Your task to perform on an android device: Open Wikipedia Image 0: 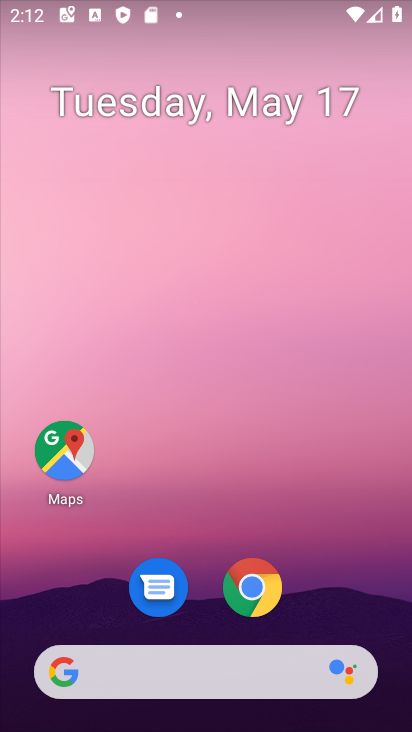
Step 0: drag from (239, 612) to (242, 107)
Your task to perform on an android device: Open Wikipedia Image 1: 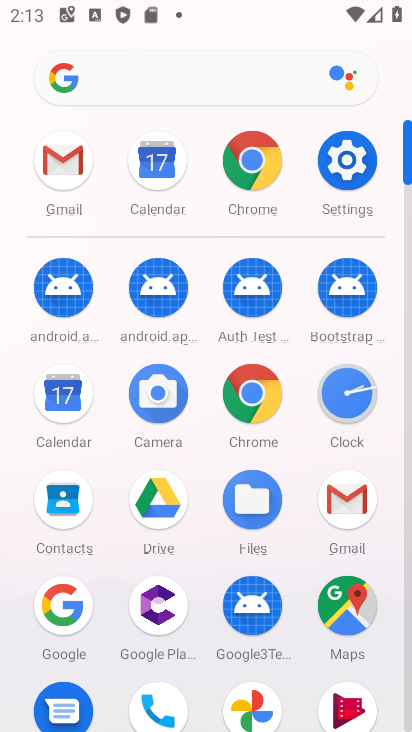
Step 1: click (248, 80)
Your task to perform on an android device: Open Wikipedia Image 2: 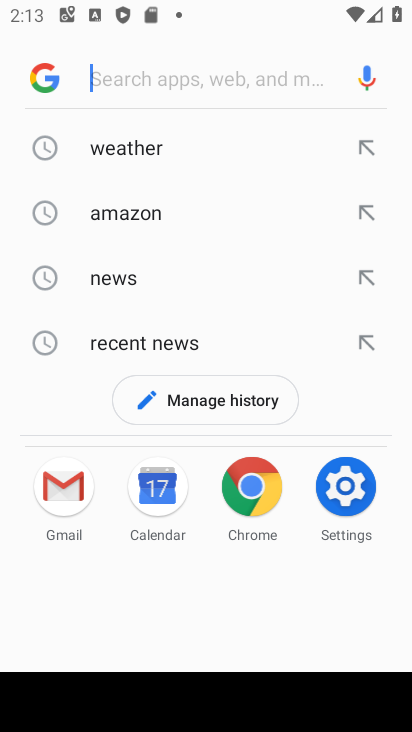
Step 2: type "wikipedia"
Your task to perform on an android device: Open Wikipedia Image 3: 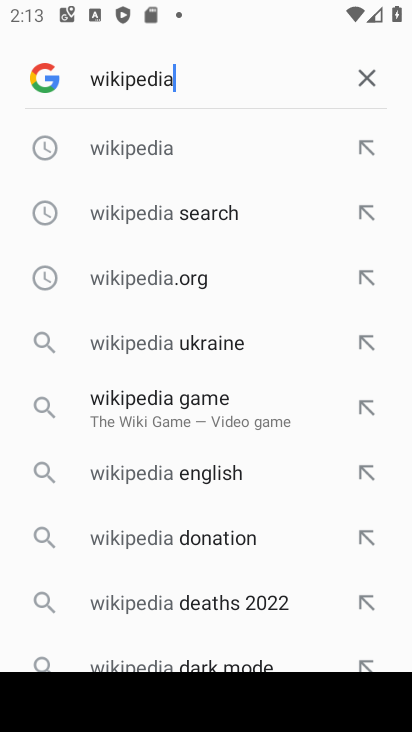
Step 3: click (181, 148)
Your task to perform on an android device: Open Wikipedia Image 4: 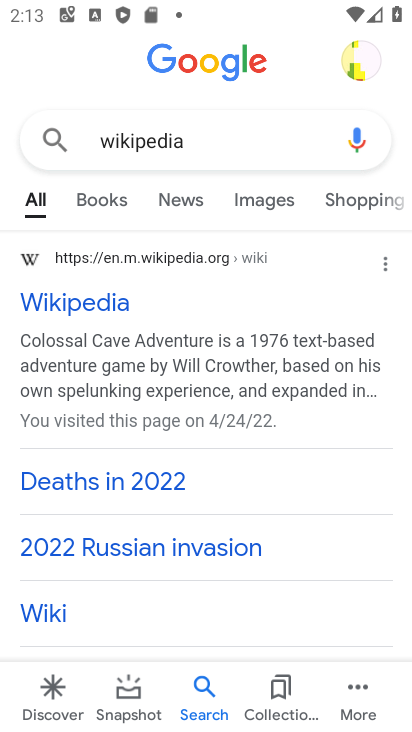
Step 4: click (104, 284)
Your task to perform on an android device: Open Wikipedia Image 5: 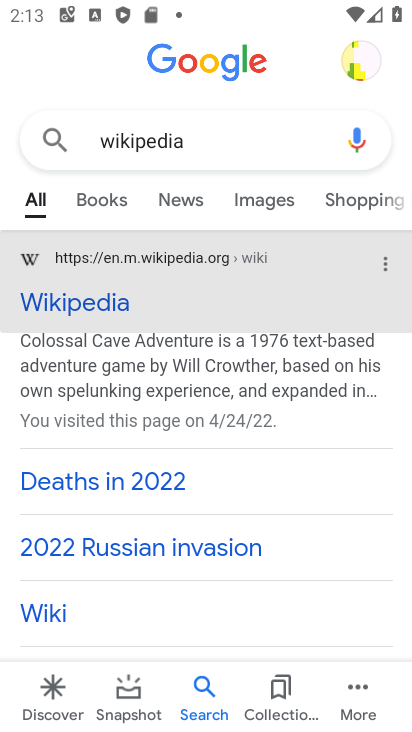
Step 5: click (88, 287)
Your task to perform on an android device: Open Wikipedia Image 6: 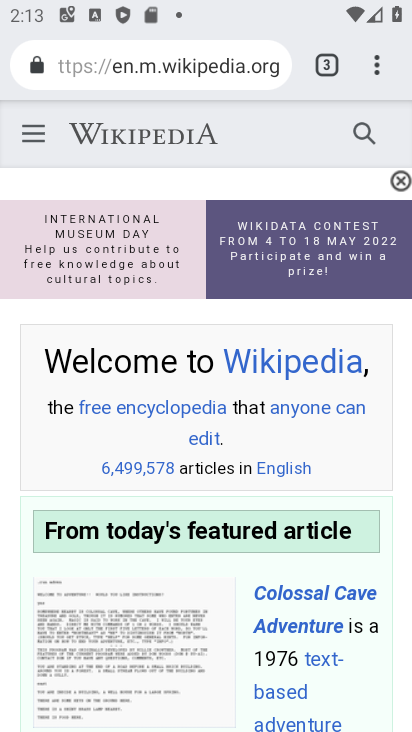
Step 6: task complete